Your task to perform on an android device: open wifi settings Image 0: 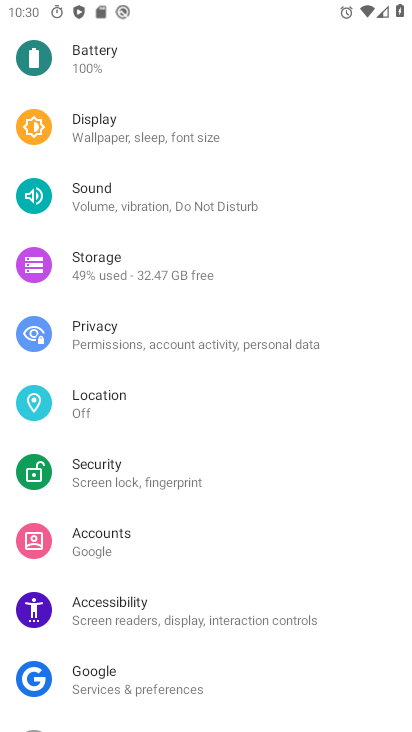
Step 0: press home button
Your task to perform on an android device: open wifi settings Image 1: 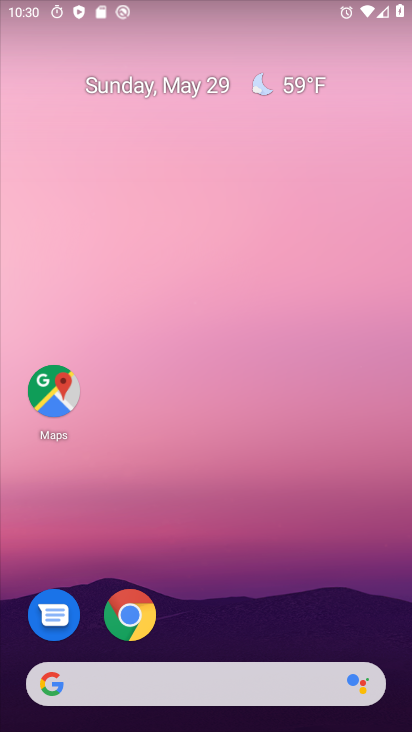
Step 1: drag from (238, 568) to (249, 78)
Your task to perform on an android device: open wifi settings Image 2: 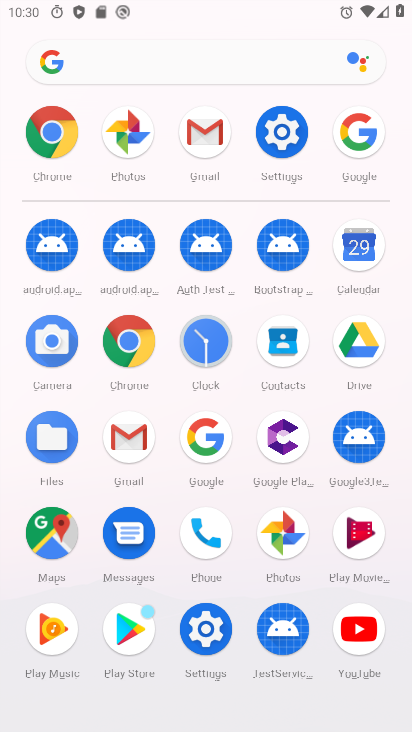
Step 2: click (277, 147)
Your task to perform on an android device: open wifi settings Image 3: 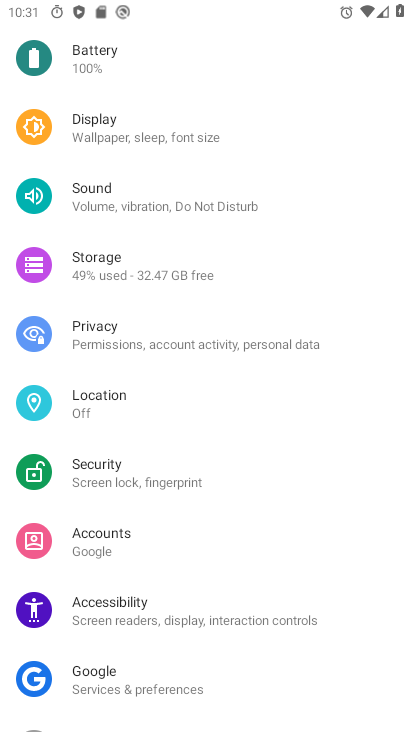
Step 3: drag from (137, 135) to (158, 628)
Your task to perform on an android device: open wifi settings Image 4: 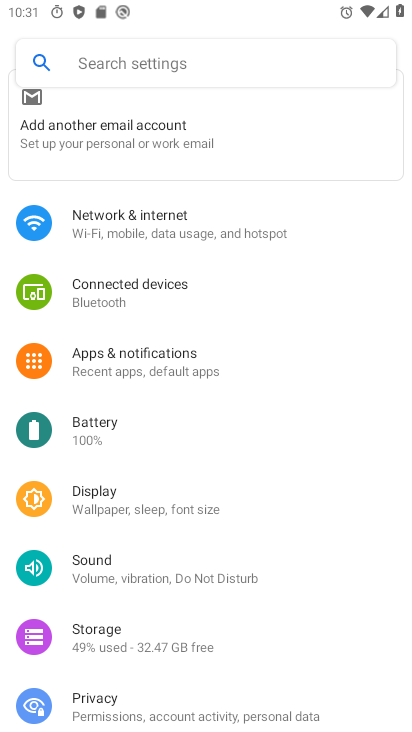
Step 4: click (119, 221)
Your task to perform on an android device: open wifi settings Image 5: 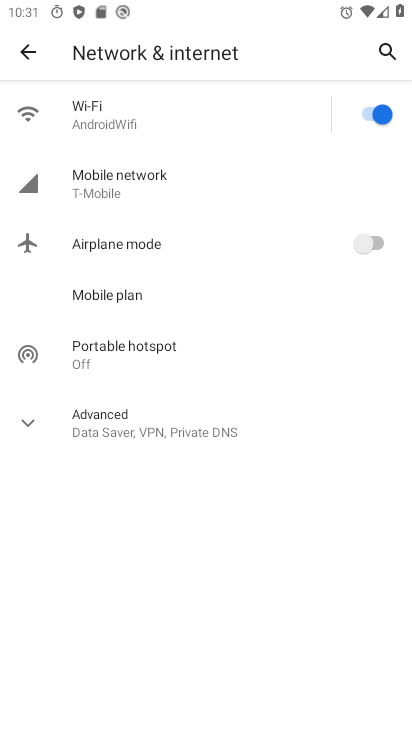
Step 5: click (181, 103)
Your task to perform on an android device: open wifi settings Image 6: 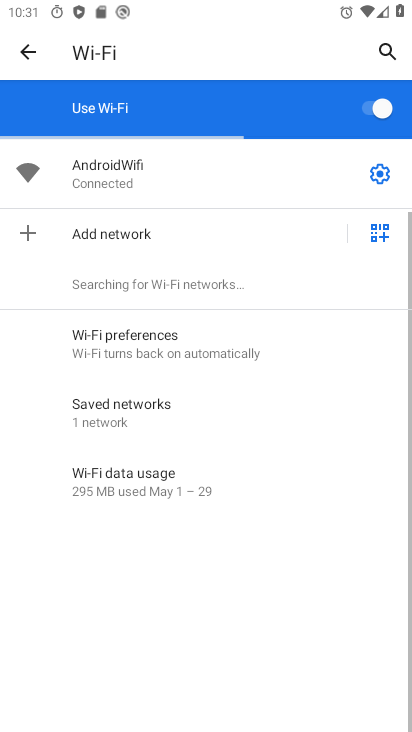
Step 6: click (146, 175)
Your task to perform on an android device: open wifi settings Image 7: 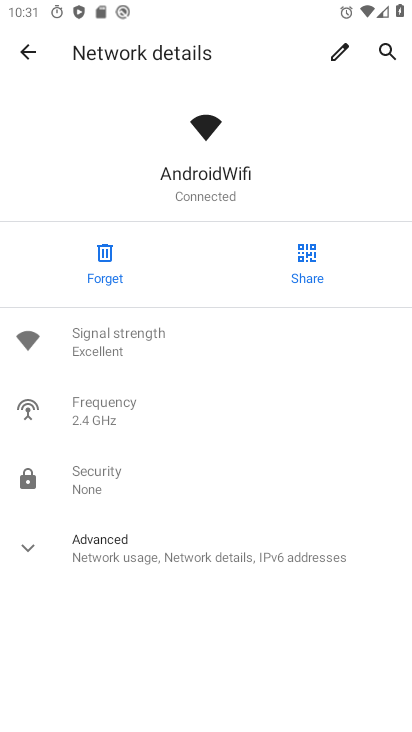
Step 7: task complete